Your task to perform on an android device: toggle show notifications on the lock screen Image 0: 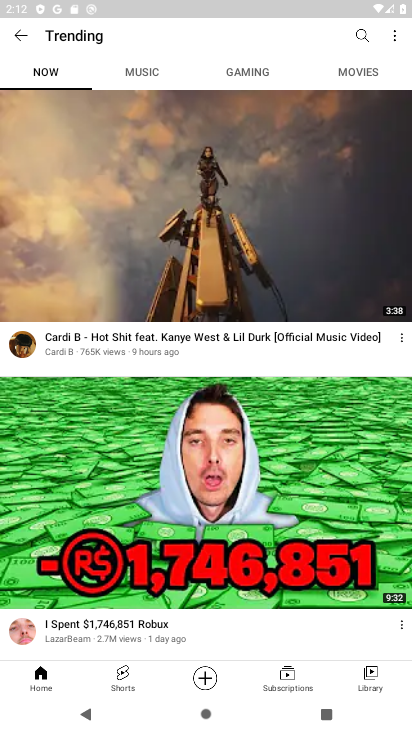
Step 0: drag from (204, 9) to (232, 591)
Your task to perform on an android device: toggle show notifications on the lock screen Image 1: 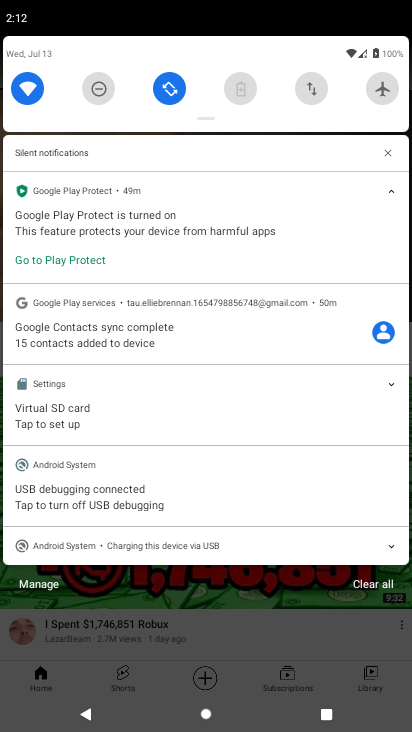
Step 1: drag from (204, 77) to (241, 678)
Your task to perform on an android device: toggle show notifications on the lock screen Image 2: 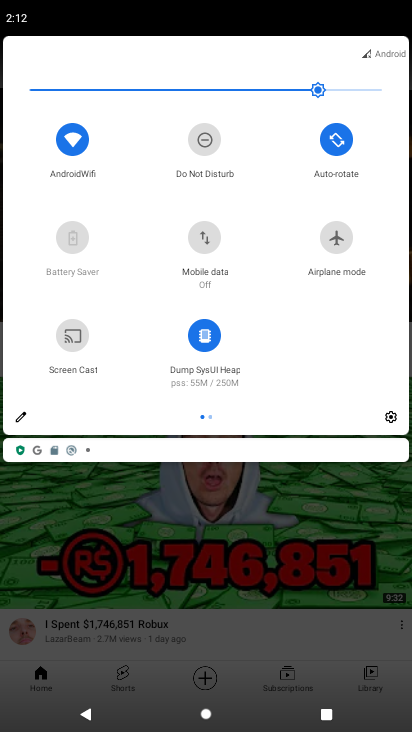
Step 2: click (392, 423)
Your task to perform on an android device: toggle show notifications on the lock screen Image 3: 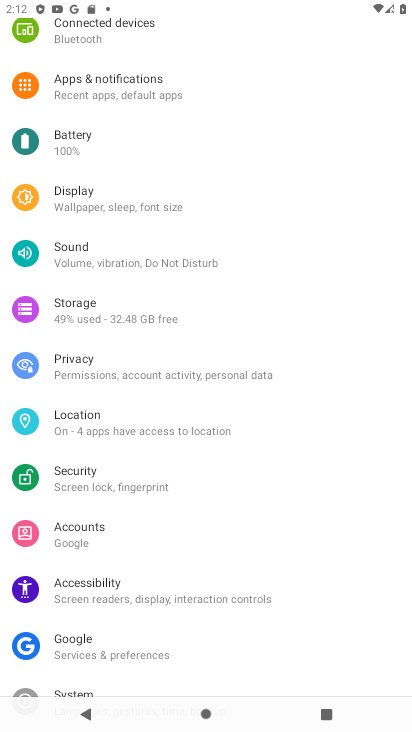
Step 3: click (126, 90)
Your task to perform on an android device: toggle show notifications on the lock screen Image 4: 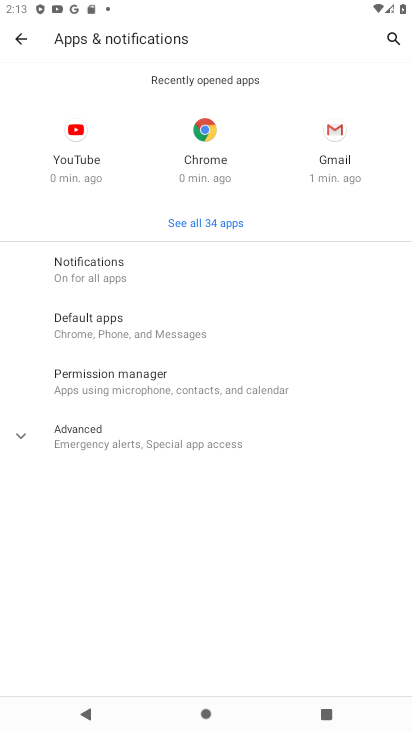
Step 4: click (114, 266)
Your task to perform on an android device: toggle show notifications on the lock screen Image 5: 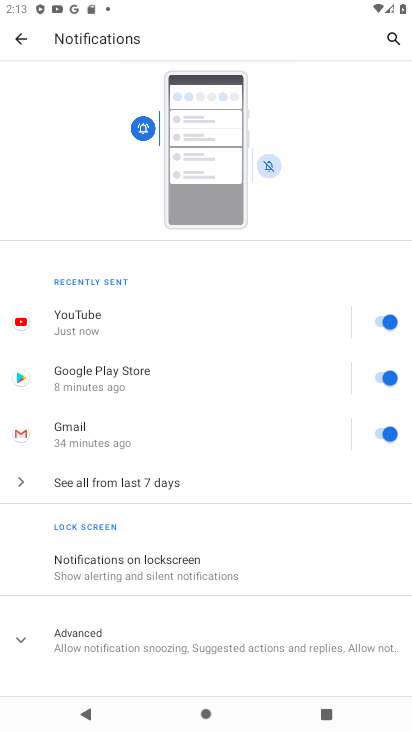
Step 5: click (198, 551)
Your task to perform on an android device: toggle show notifications on the lock screen Image 6: 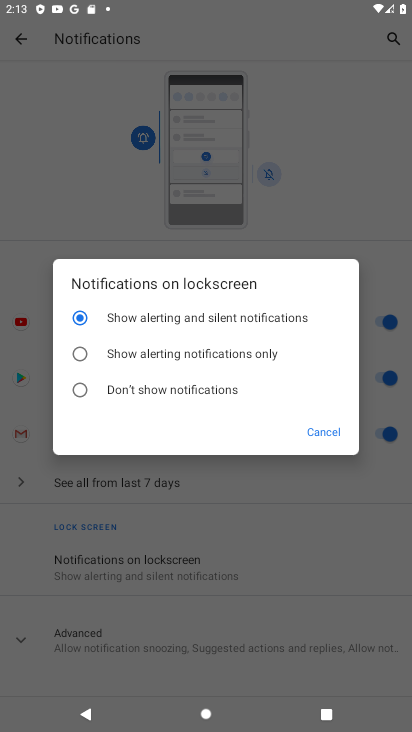
Step 6: click (135, 361)
Your task to perform on an android device: toggle show notifications on the lock screen Image 7: 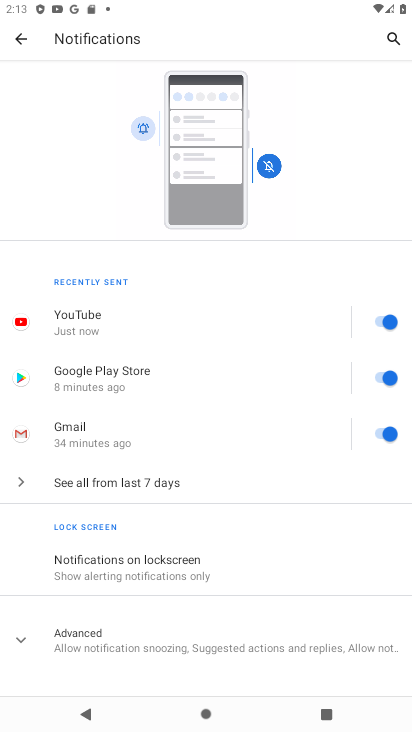
Step 7: task complete